Your task to perform on an android device: Open network settings Image 0: 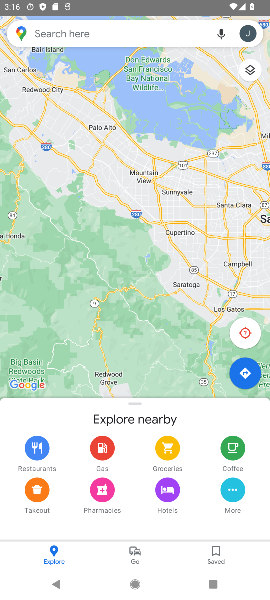
Step 0: press home button
Your task to perform on an android device: Open network settings Image 1: 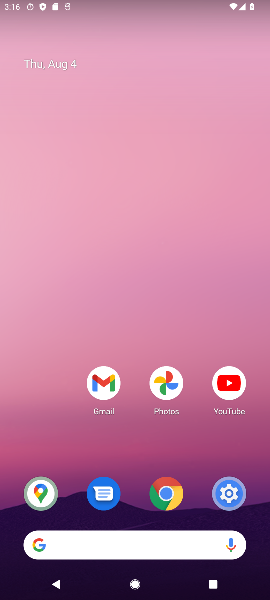
Step 1: drag from (50, 501) to (173, 251)
Your task to perform on an android device: Open network settings Image 2: 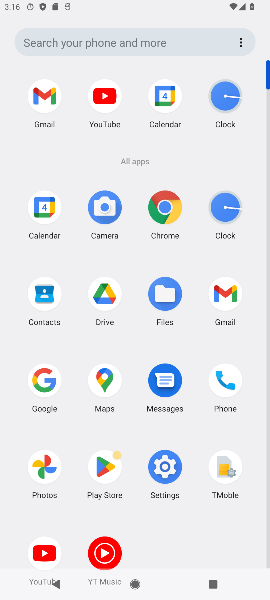
Step 2: click (164, 466)
Your task to perform on an android device: Open network settings Image 3: 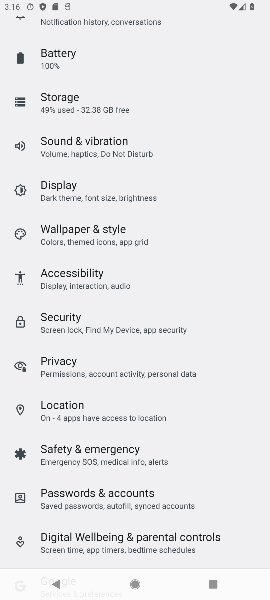
Step 3: drag from (139, 43) to (146, 423)
Your task to perform on an android device: Open network settings Image 4: 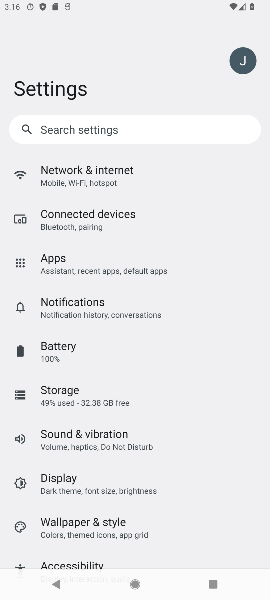
Step 4: click (108, 176)
Your task to perform on an android device: Open network settings Image 5: 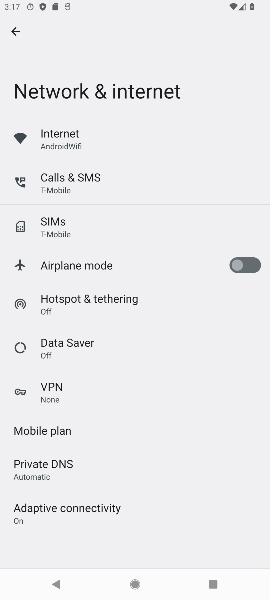
Step 5: task complete